Your task to perform on an android device: turn off priority inbox in the gmail app Image 0: 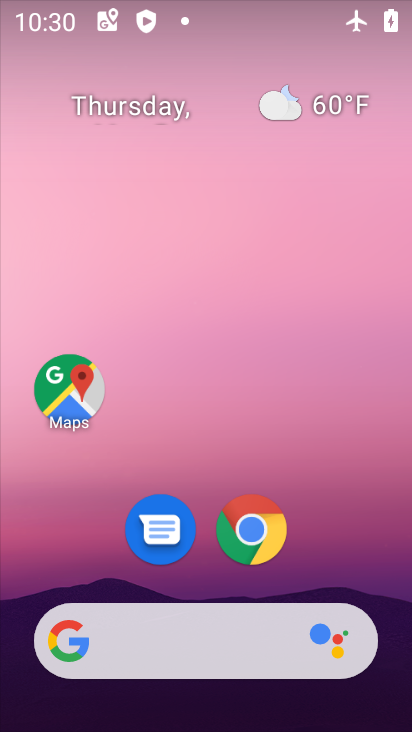
Step 0: drag from (398, 627) to (247, 6)
Your task to perform on an android device: turn off priority inbox in the gmail app Image 1: 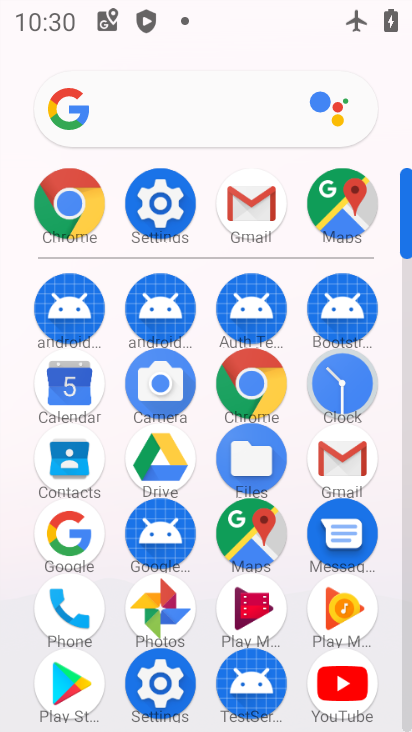
Step 1: click (331, 461)
Your task to perform on an android device: turn off priority inbox in the gmail app Image 2: 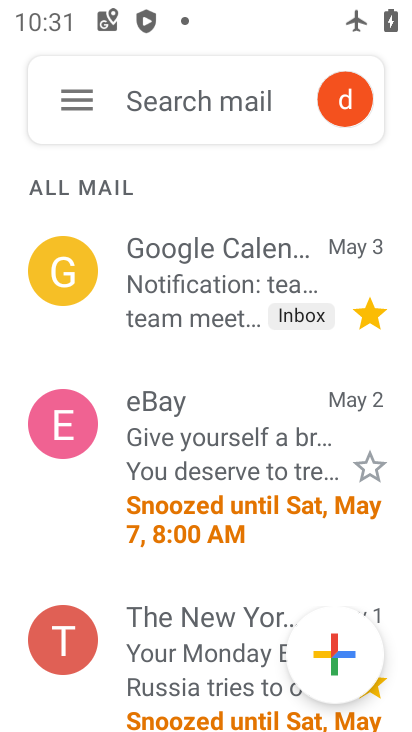
Step 2: click (74, 105)
Your task to perform on an android device: turn off priority inbox in the gmail app Image 3: 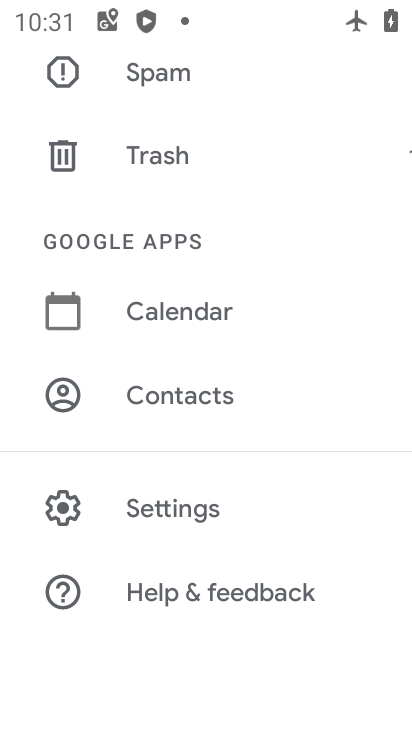
Step 3: click (172, 514)
Your task to perform on an android device: turn off priority inbox in the gmail app Image 4: 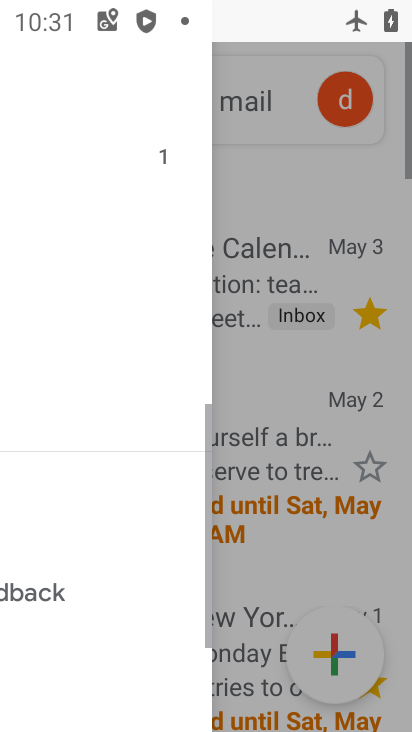
Step 4: click (152, 518)
Your task to perform on an android device: turn off priority inbox in the gmail app Image 5: 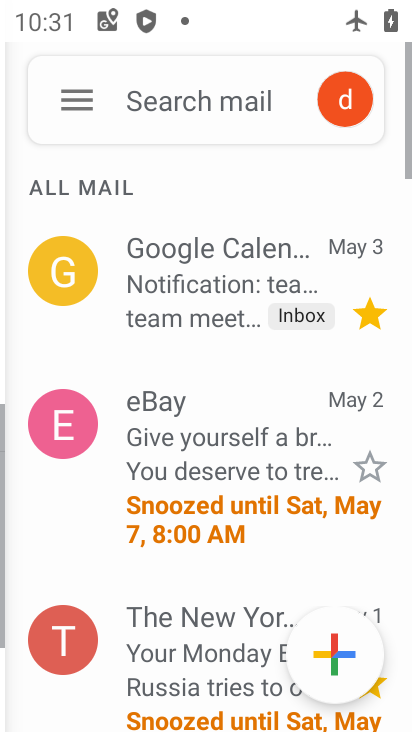
Step 5: click (152, 518)
Your task to perform on an android device: turn off priority inbox in the gmail app Image 6: 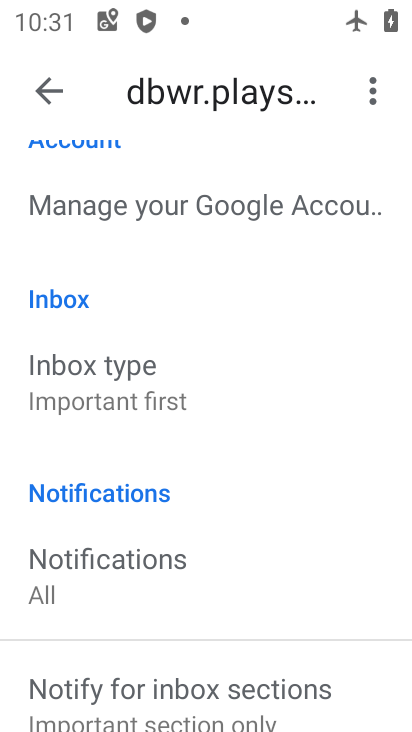
Step 6: click (125, 401)
Your task to perform on an android device: turn off priority inbox in the gmail app Image 7: 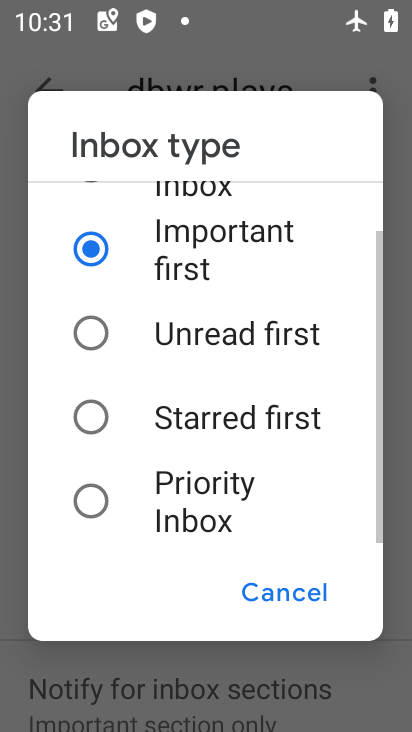
Step 7: click (94, 495)
Your task to perform on an android device: turn off priority inbox in the gmail app Image 8: 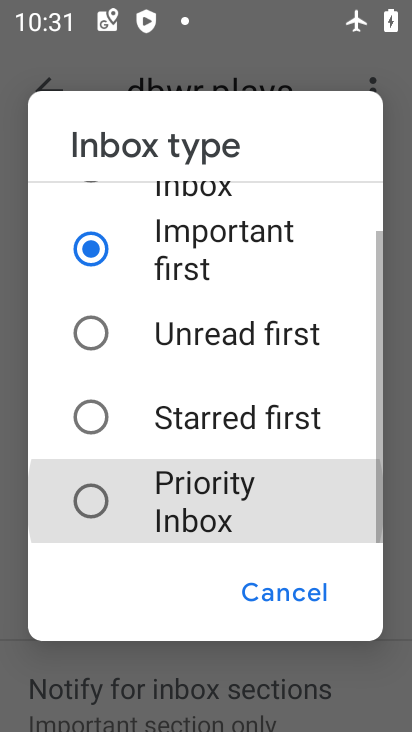
Step 8: click (94, 505)
Your task to perform on an android device: turn off priority inbox in the gmail app Image 9: 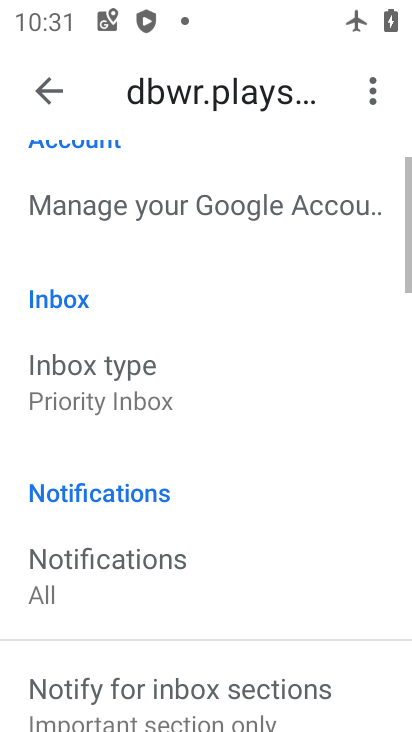
Step 9: click (96, 485)
Your task to perform on an android device: turn off priority inbox in the gmail app Image 10: 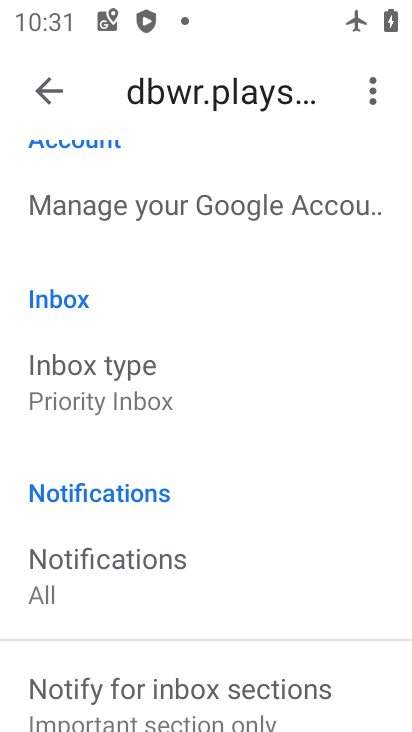
Step 10: task complete